Your task to perform on an android device: turn off sleep mode Image 0: 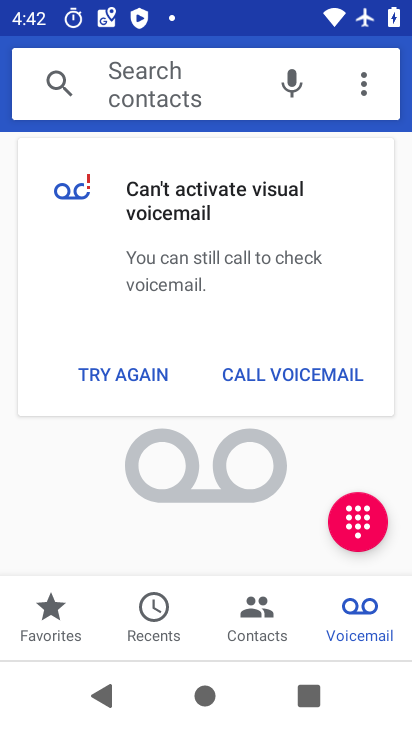
Step 0: press home button
Your task to perform on an android device: turn off sleep mode Image 1: 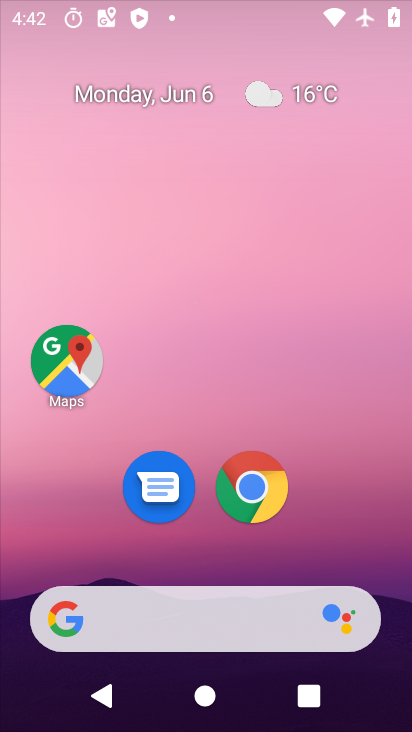
Step 1: drag from (348, 536) to (321, 143)
Your task to perform on an android device: turn off sleep mode Image 2: 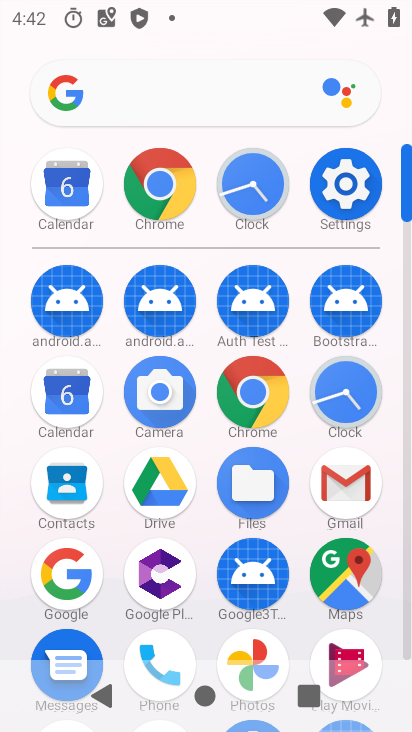
Step 2: click (342, 183)
Your task to perform on an android device: turn off sleep mode Image 3: 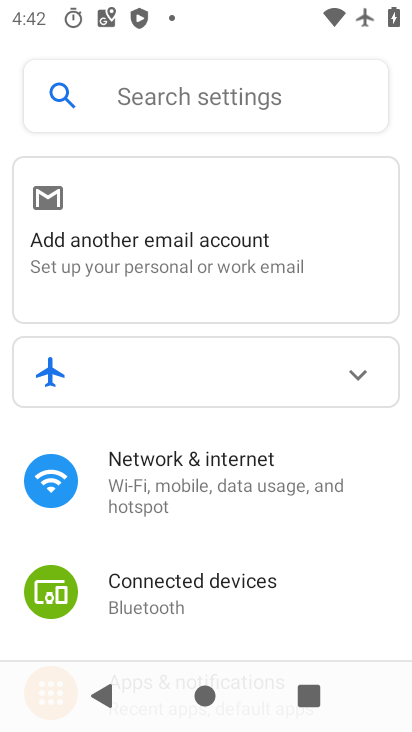
Step 3: drag from (301, 562) to (269, 91)
Your task to perform on an android device: turn off sleep mode Image 4: 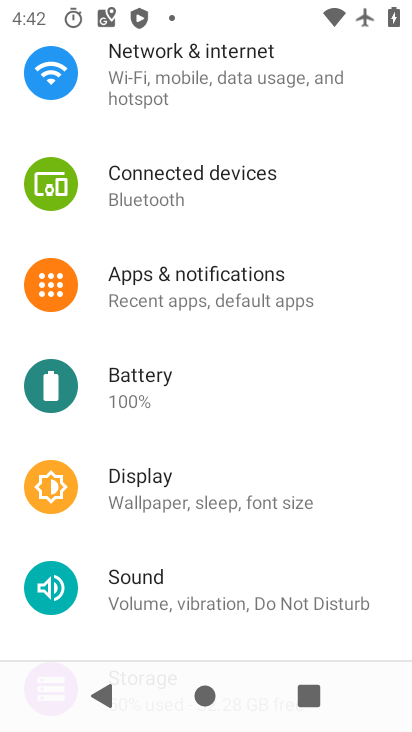
Step 4: click (178, 499)
Your task to perform on an android device: turn off sleep mode Image 5: 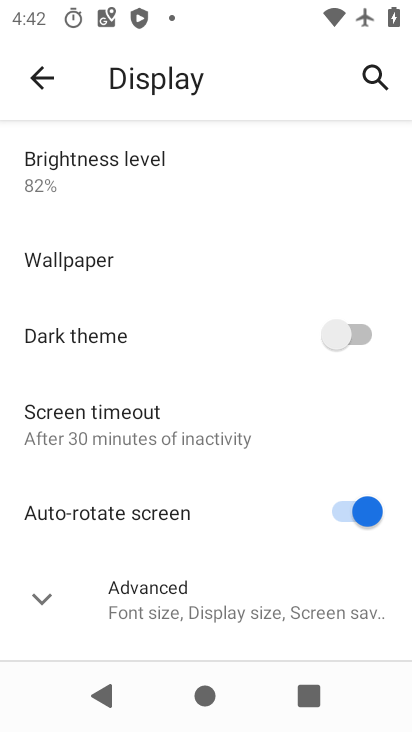
Step 5: drag from (234, 542) to (241, 198)
Your task to perform on an android device: turn off sleep mode Image 6: 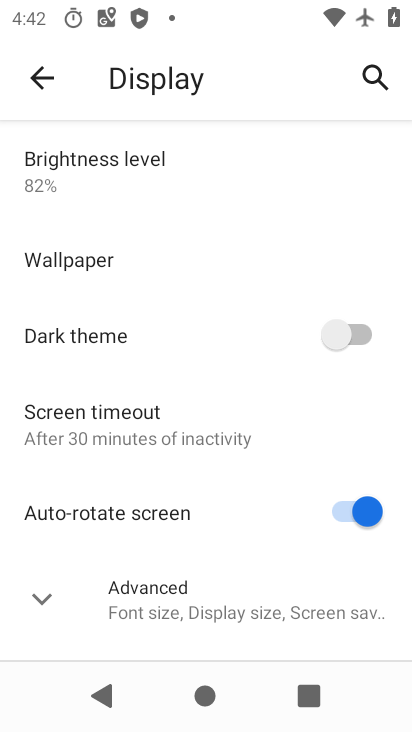
Step 6: click (149, 419)
Your task to perform on an android device: turn off sleep mode Image 7: 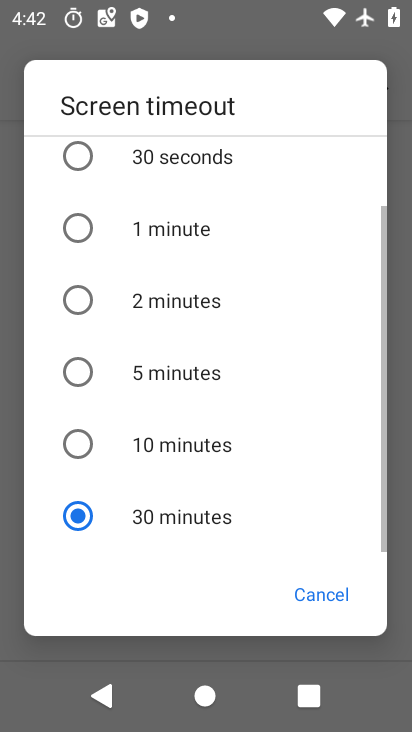
Step 7: task complete